Your task to perform on an android device: Go to internet settings Image 0: 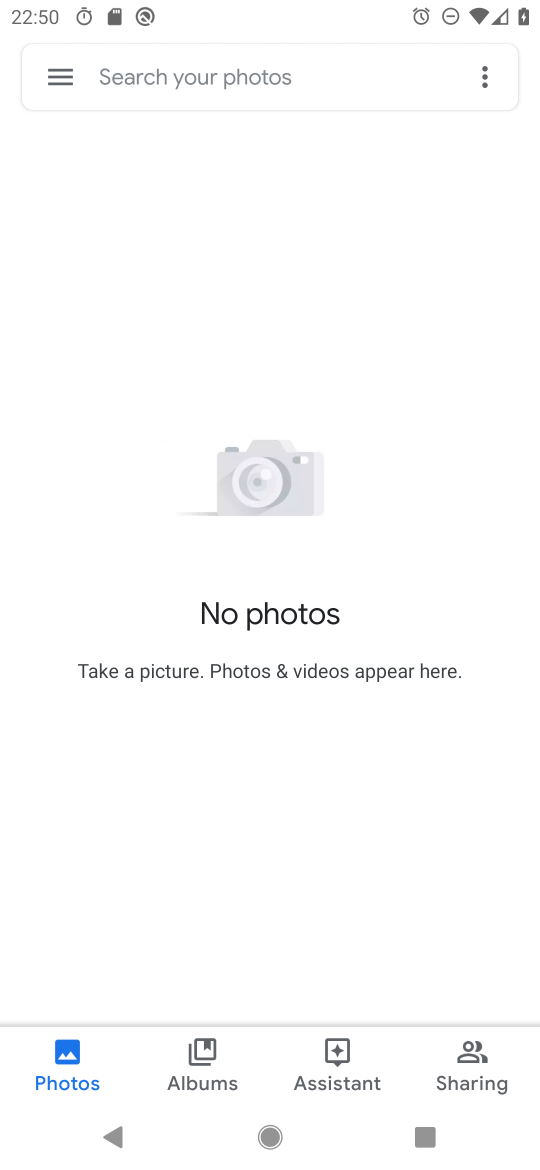
Step 0: drag from (217, 767) to (237, 565)
Your task to perform on an android device: Go to internet settings Image 1: 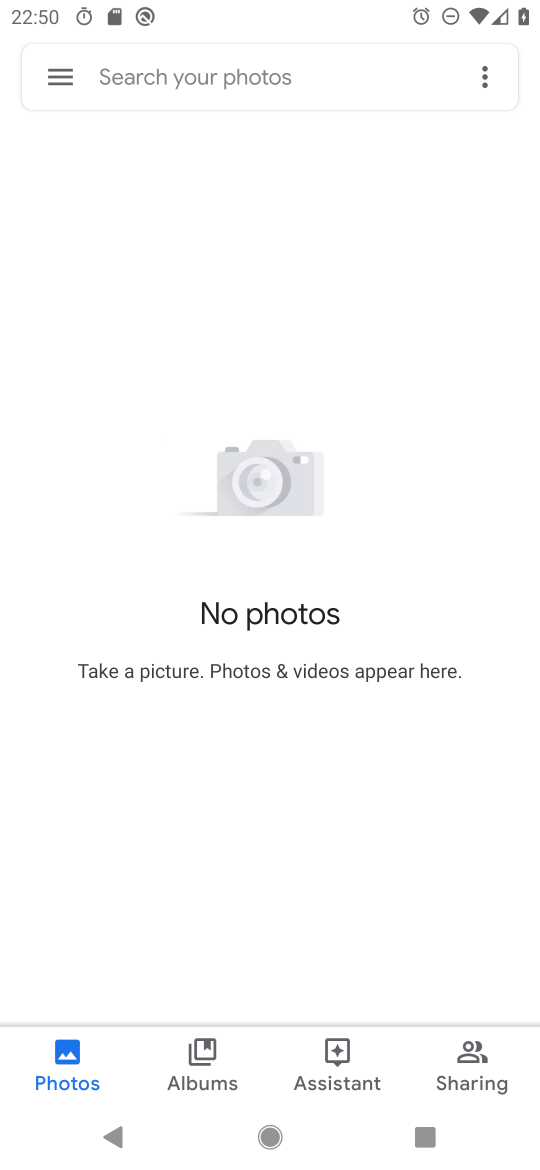
Step 1: press home button
Your task to perform on an android device: Go to internet settings Image 2: 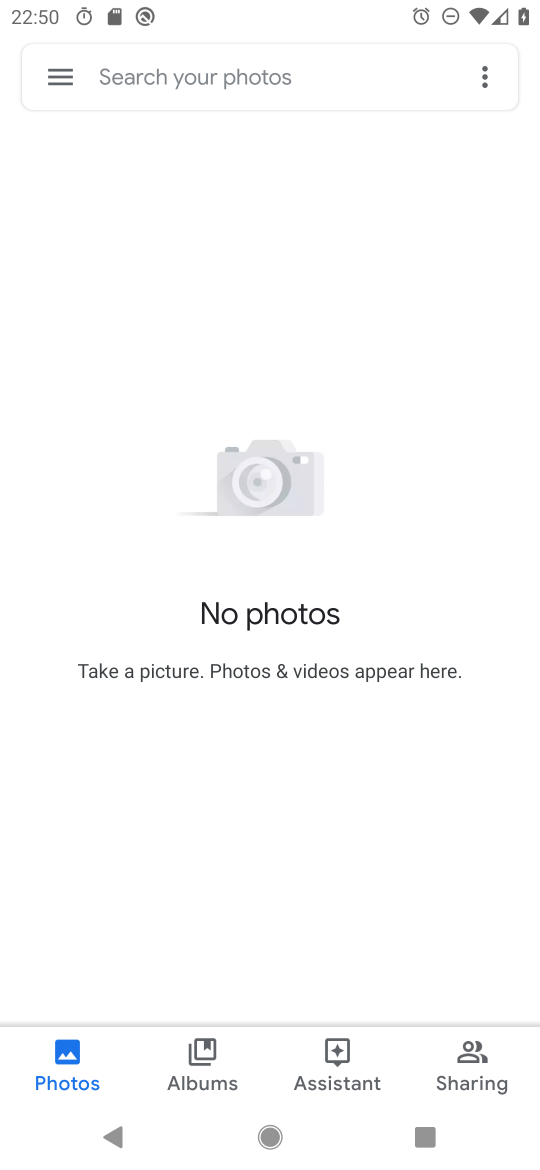
Step 2: click (273, 584)
Your task to perform on an android device: Go to internet settings Image 3: 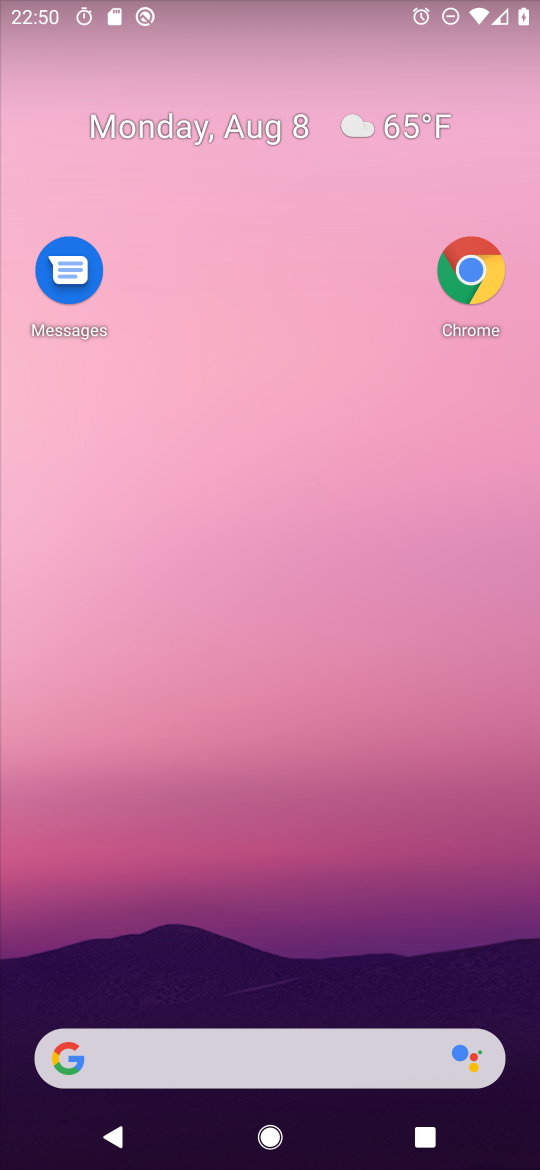
Step 3: drag from (219, 962) to (360, 391)
Your task to perform on an android device: Go to internet settings Image 4: 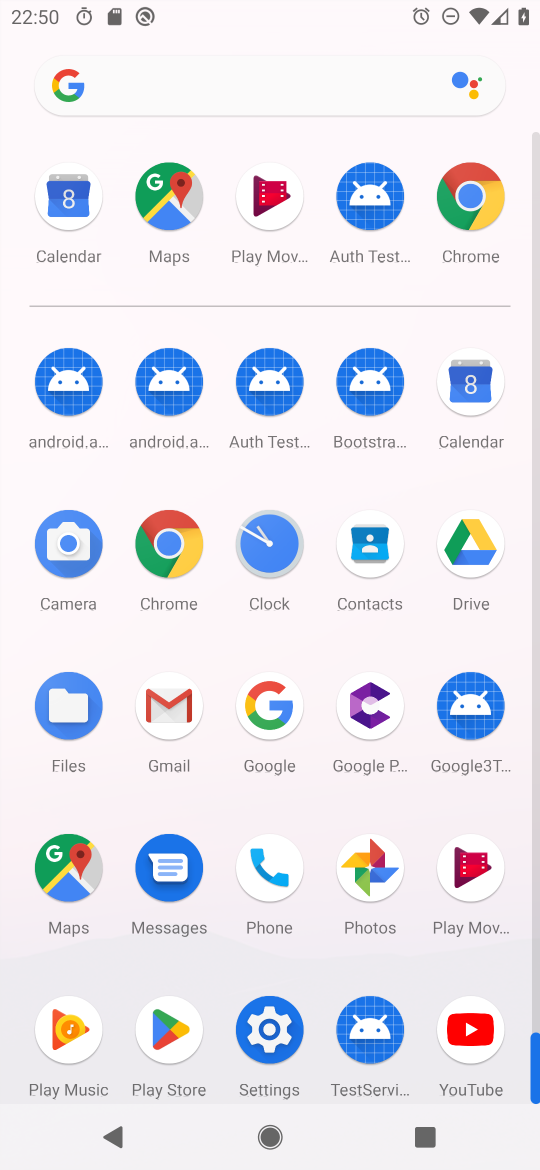
Step 4: click (271, 1008)
Your task to perform on an android device: Go to internet settings Image 5: 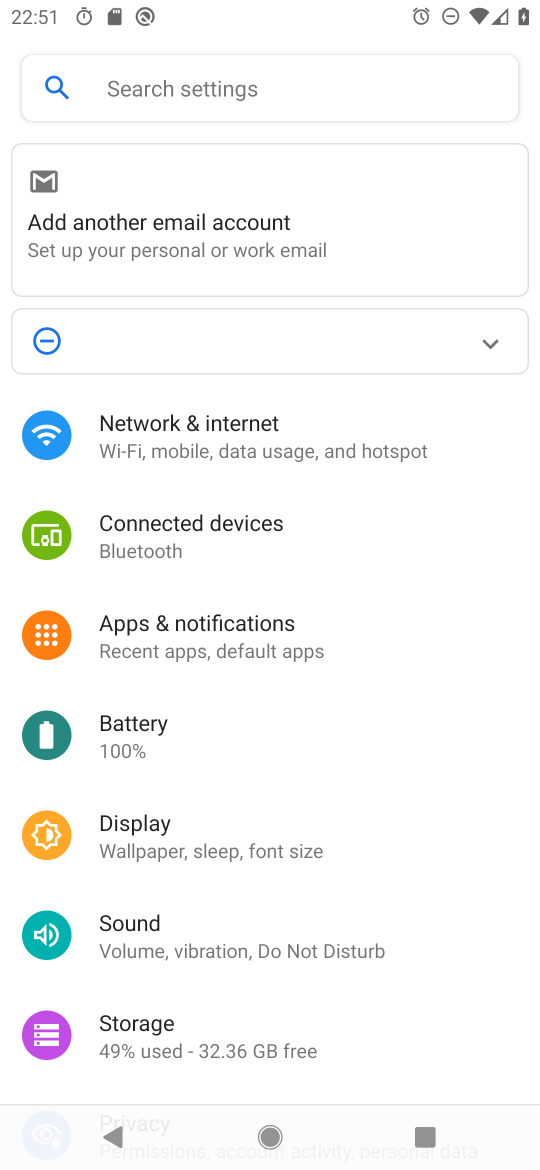
Step 5: click (197, 428)
Your task to perform on an android device: Go to internet settings Image 6: 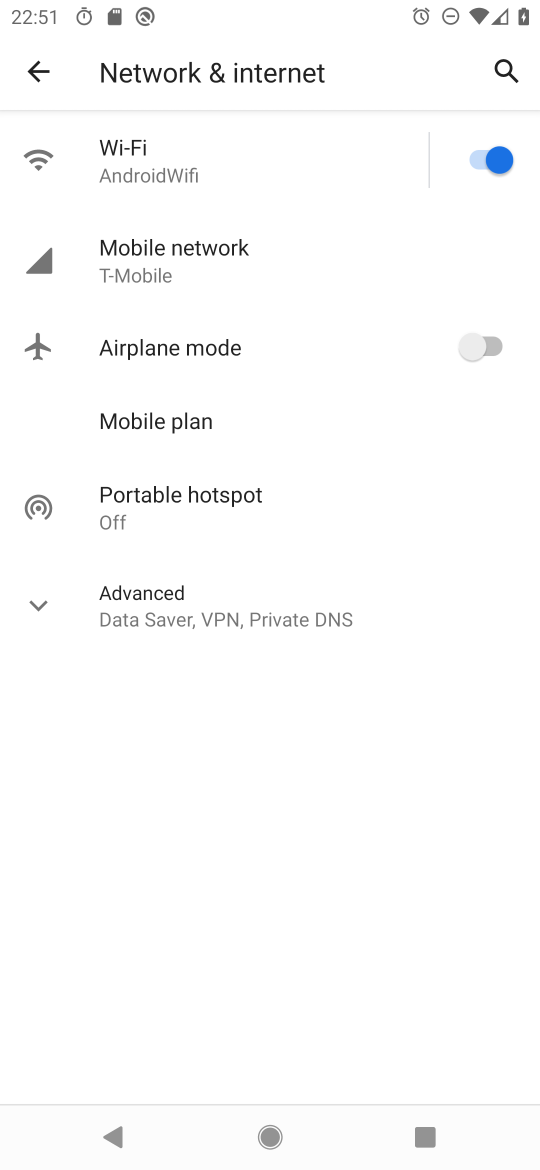
Step 6: task complete